Your task to perform on an android device: allow cookies in the chrome app Image 0: 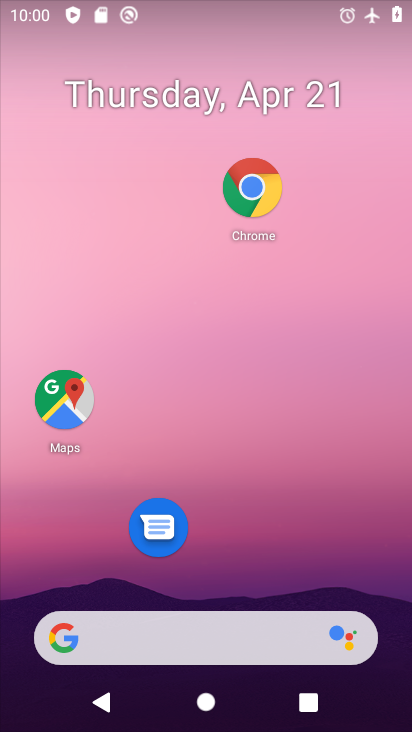
Step 0: click (265, 183)
Your task to perform on an android device: allow cookies in the chrome app Image 1: 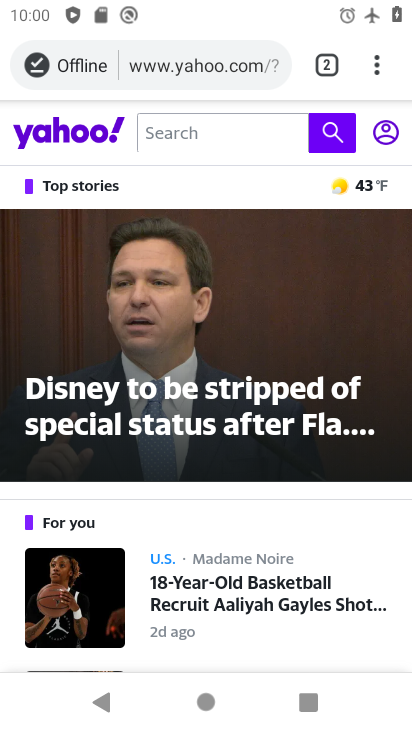
Step 1: click (388, 66)
Your task to perform on an android device: allow cookies in the chrome app Image 2: 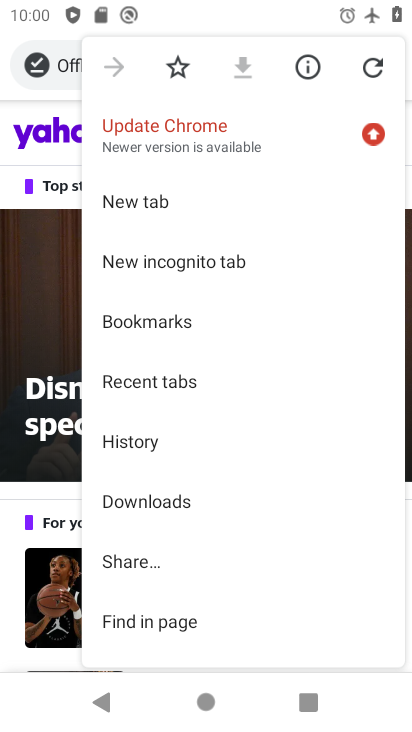
Step 2: click (210, 555)
Your task to perform on an android device: allow cookies in the chrome app Image 3: 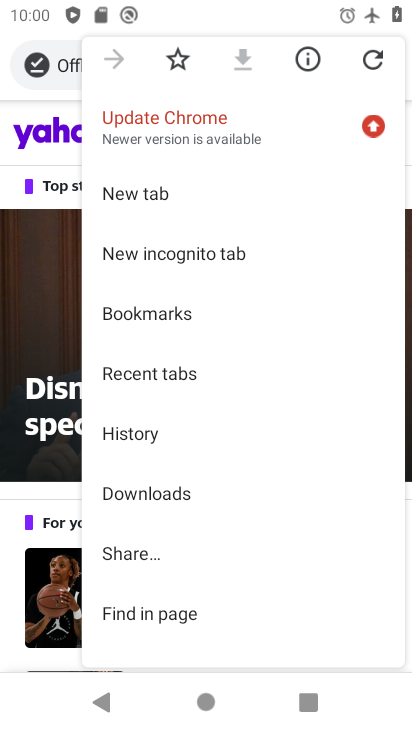
Step 3: drag from (283, 603) to (318, 1)
Your task to perform on an android device: allow cookies in the chrome app Image 4: 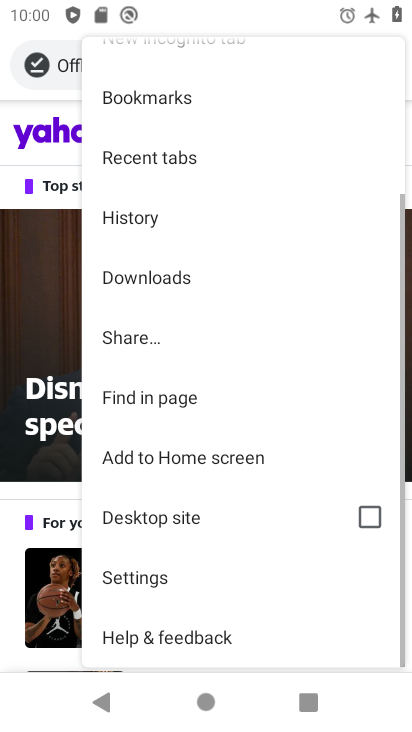
Step 4: click (233, 576)
Your task to perform on an android device: allow cookies in the chrome app Image 5: 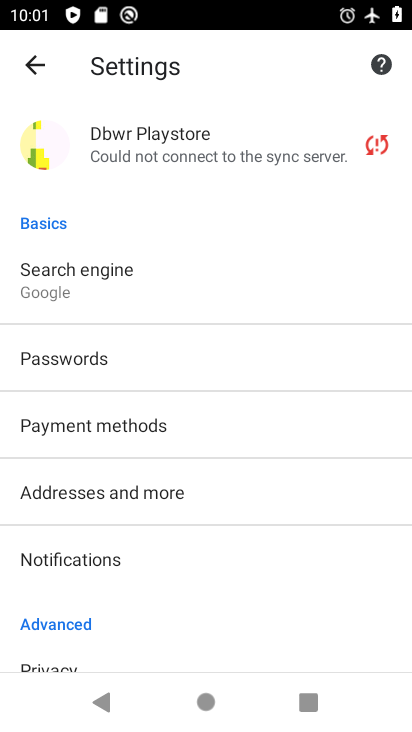
Step 5: drag from (233, 576) to (203, 289)
Your task to perform on an android device: allow cookies in the chrome app Image 6: 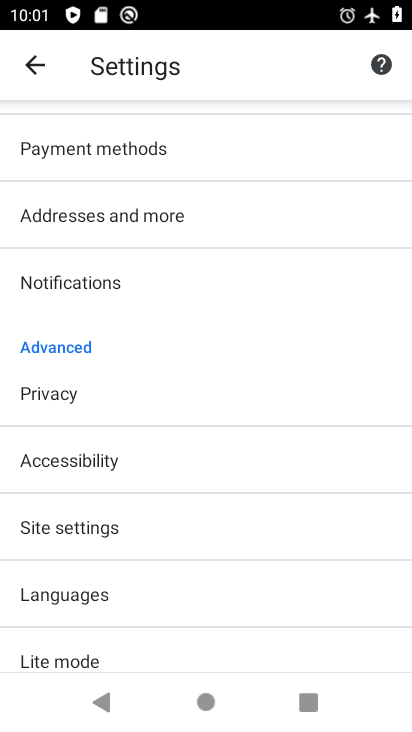
Step 6: click (162, 538)
Your task to perform on an android device: allow cookies in the chrome app Image 7: 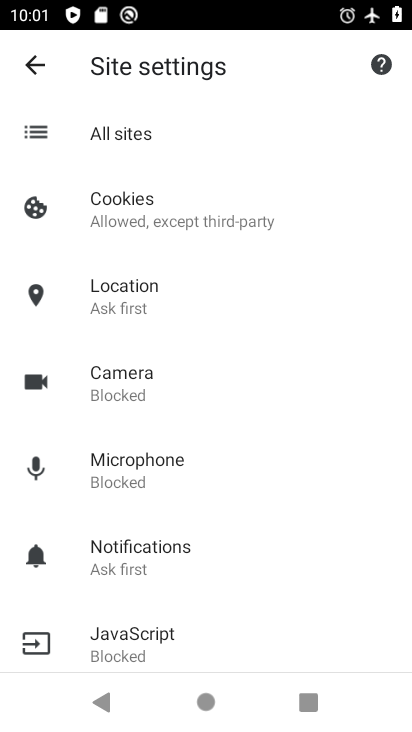
Step 7: click (210, 214)
Your task to perform on an android device: allow cookies in the chrome app Image 8: 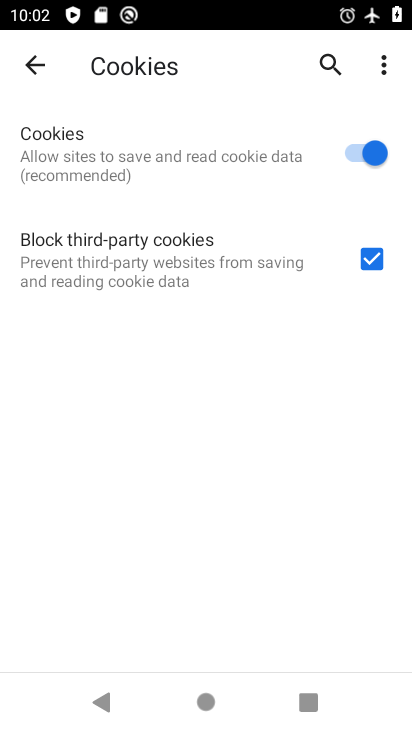
Step 8: task complete